Your task to perform on an android device: check google app version Image 0: 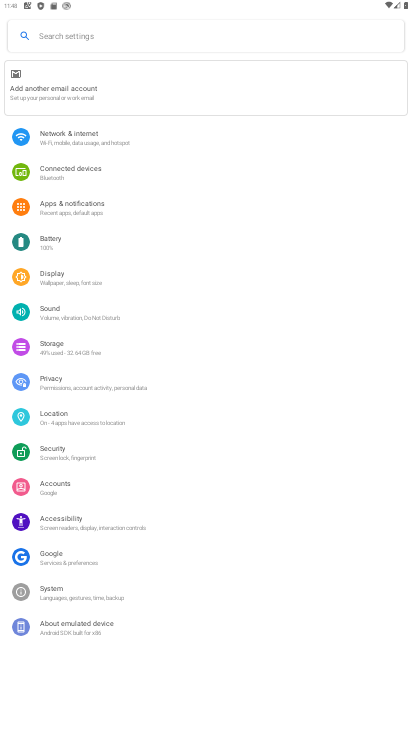
Step 0: press home button
Your task to perform on an android device: check google app version Image 1: 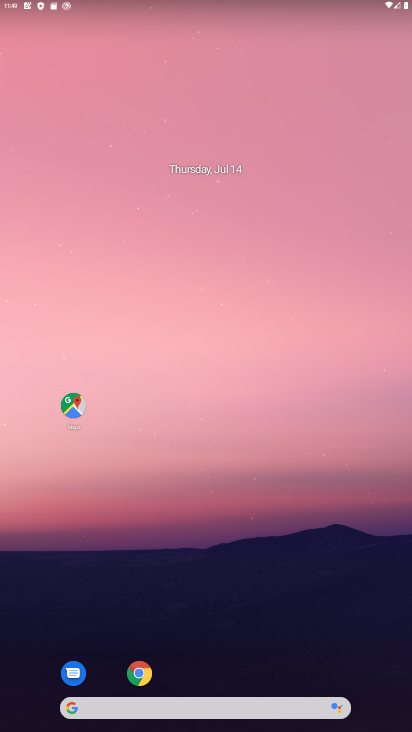
Step 1: drag from (270, 669) to (144, 2)
Your task to perform on an android device: check google app version Image 2: 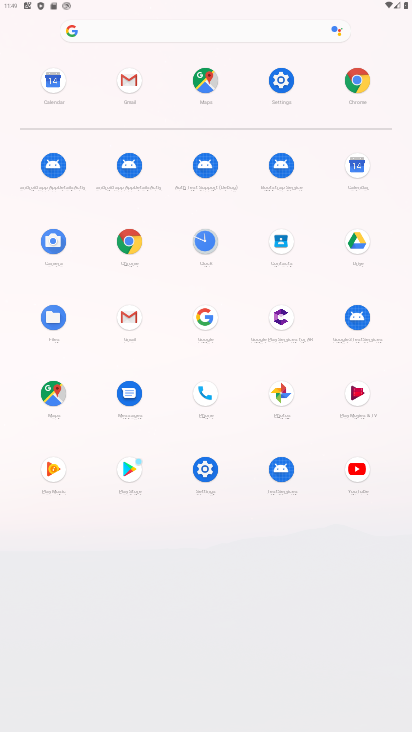
Step 2: click (204, 320)
Your task to perform on an android device: check google app version Image 3: 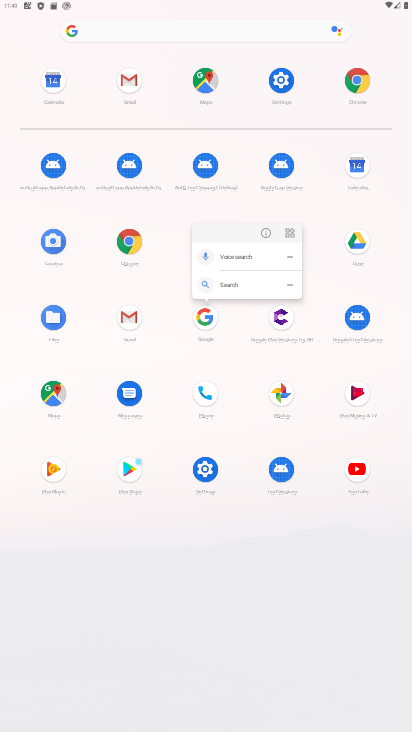
Step 3: click (268, 231)
Your task to perform on an android device: check google app version Image 4: 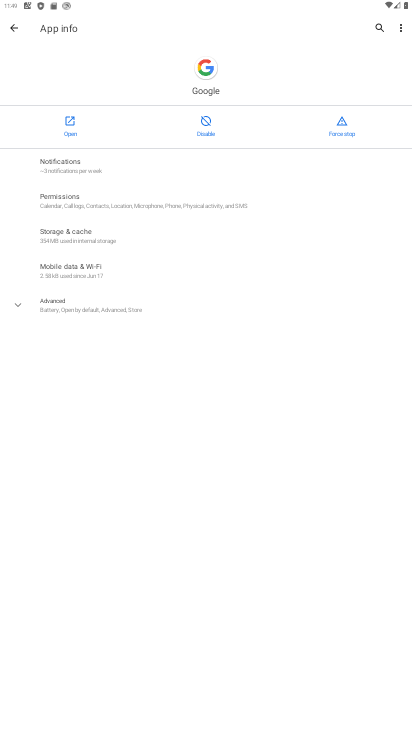
Step 4: click (41, 298)
Your task to perform on an android device: check google app version Image 5: 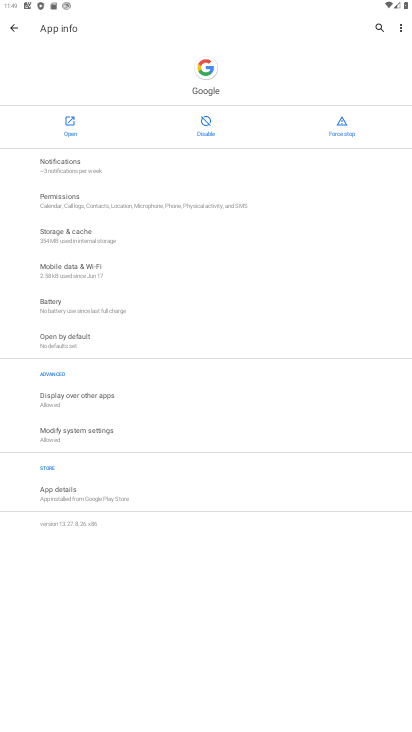
Step 5: task complete